Your task to perform on an android device: turn on javascript in the chrome app Image 0: 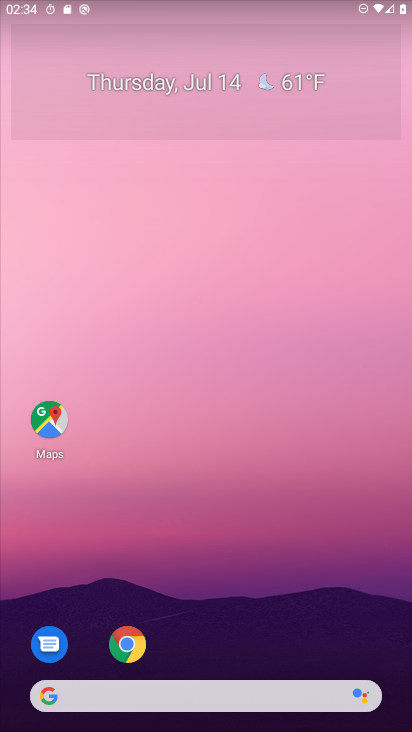
Step 0: click (131, 645)
Your task to perform on an android device: turn on javascript in the chrome app Image 1: 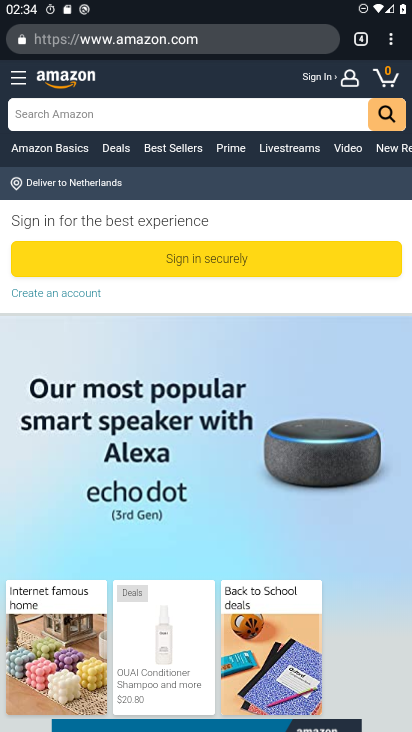
Step 1: drag from (395, 40) to (253, 476)
Your task to perform on an android device: turn on javascript in the chrome app Image 2: 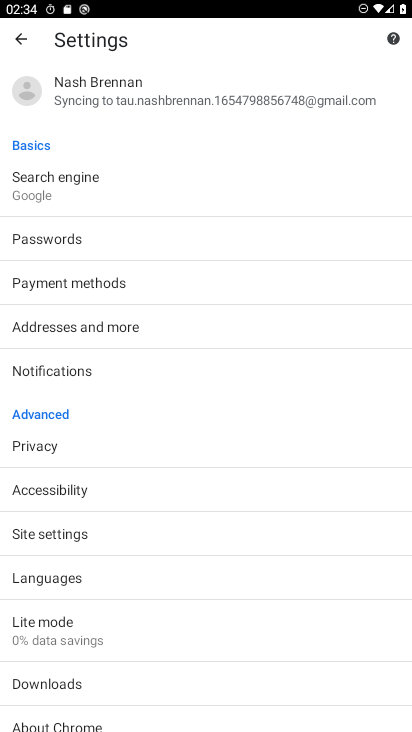
Step 2: click (34, 534)
Your task to perform on an android device: turn on javascript in the chrome app Image 3: 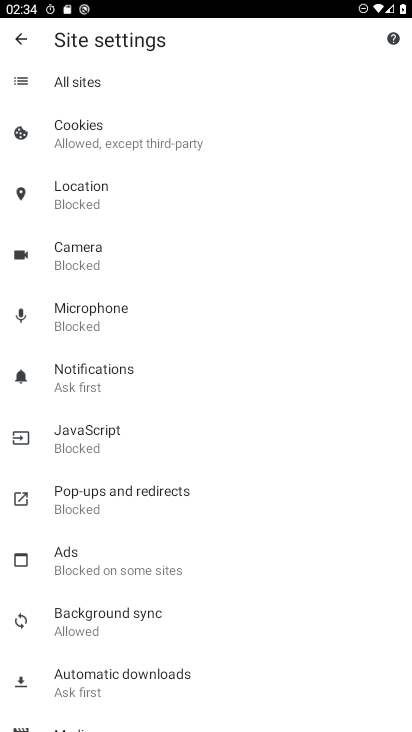
Step 3: click (86, 427)
Your task to perform on an android device: turn on javascript in the chrome app Image 4: 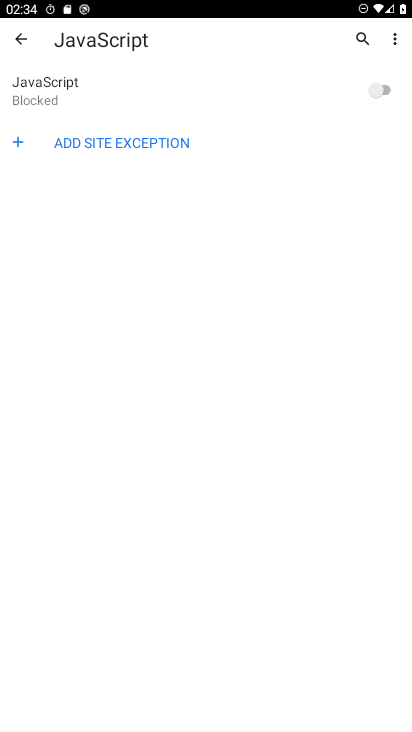
Step 4: click (378, 92)
Your task to perform on an android device: turn on javascript in the chrome app Image 5: 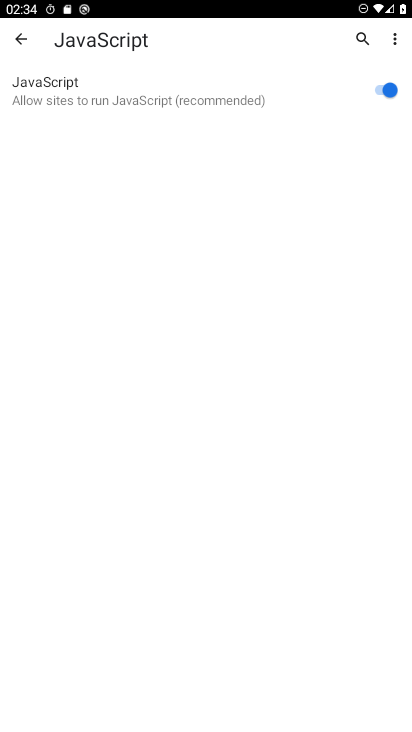
Step 5: task complete